Your task to perform on an android device: Open Google Chrome Image 0: 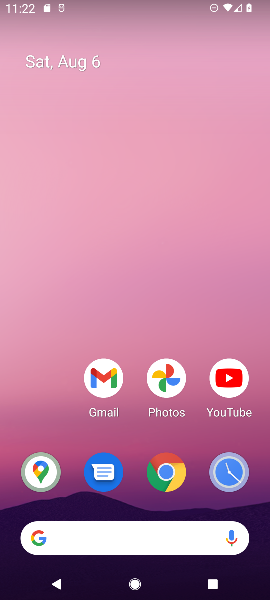
Step 0: drag from (169, 495) to (197, 28)
Your task to perform on an android device: Open Google Chrome Image 1: 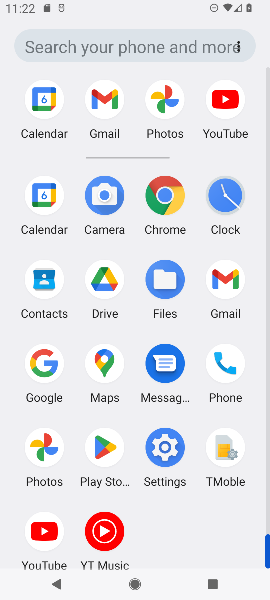
Step 1: task complete